Your task to perform on an android device: turn off notifications settings in the gmail app Image 0: 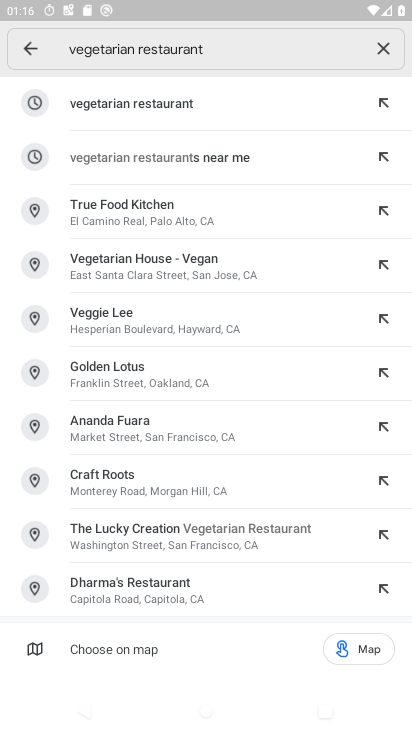
Step 0: press home button
Your task to perform on an android device: turn off notifications settings in the gmail app Image 1: 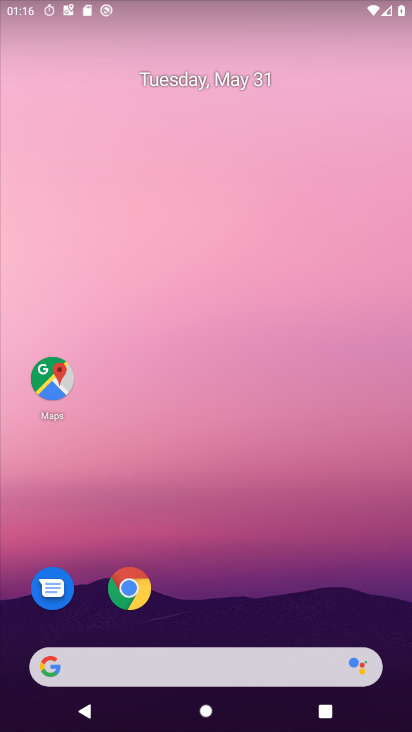
Step 1: drag from (190, 650) to (147, 64)
Your task to perform on an android device: turn off notifications settings in the gmail app Image 2: 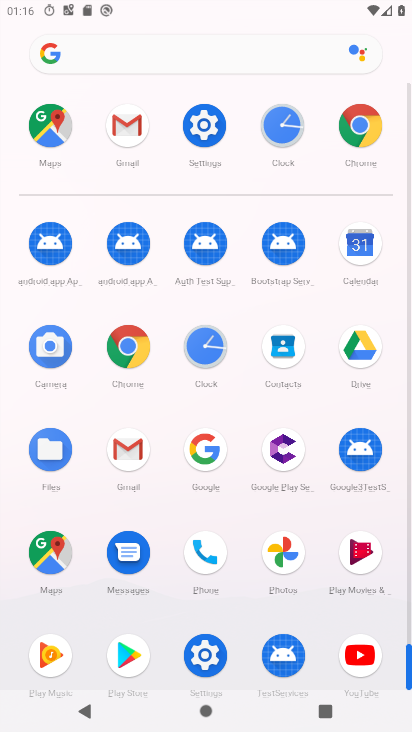
Step 2: click (122, 443)
Your task to perform on an android device: turn off notifications settings in the gmail app Image 3: 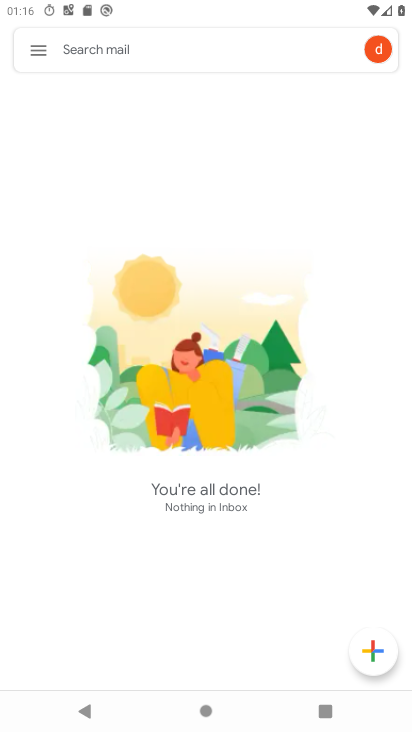
Step 3: click (43, 45)
Your task to perform on an android device: turn off notifications settings in the gmail app Image 4: 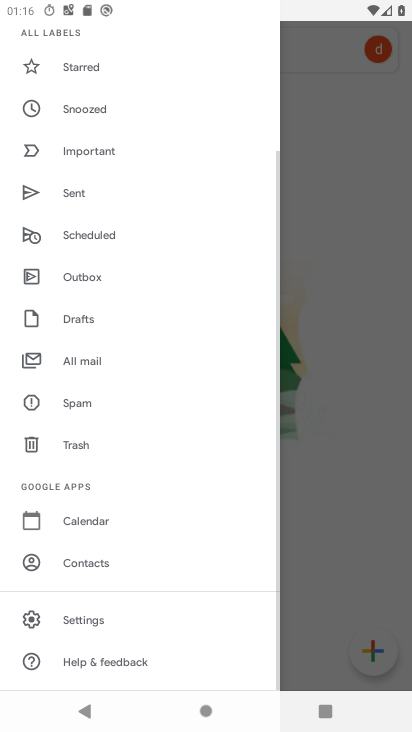
Step 4: click (116, 629)
Your task to perform on an android device: turn off notifications settings in the gmail app Image 5: 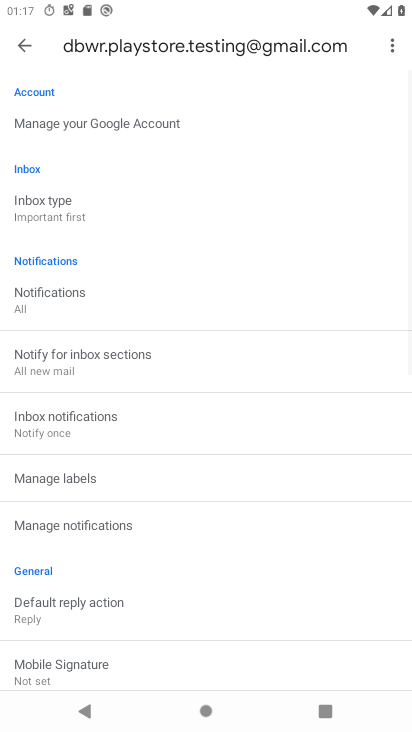
Step 5: drag from (109, 623) to (123, 380)
Your task to perform on an android device: turn off notifications settings in the gmail app Image 6: 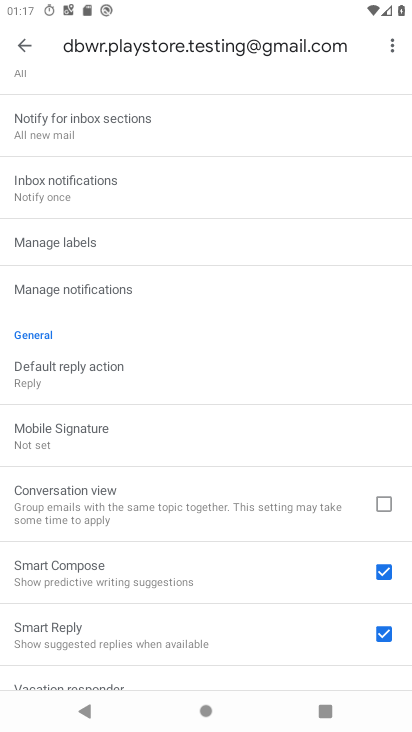
Step 6: click (128, 296)
Your task to perform on an android device: turn off notifications settings in the gmail app Image 7: 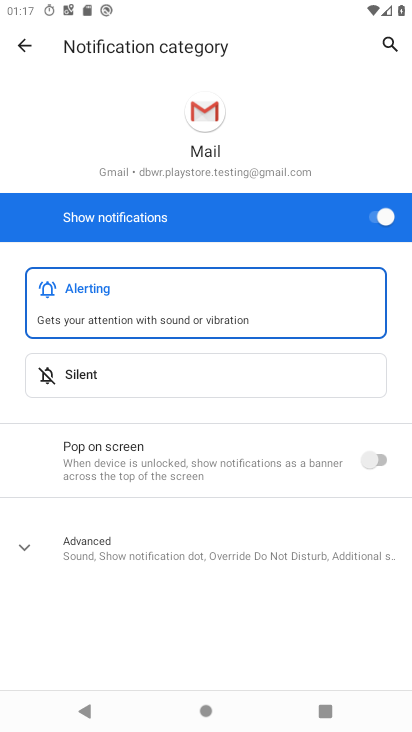
Step 7: click (379, 219)
Your task to perform on an android device: turn off notifications settings in the gmail app Image 8: 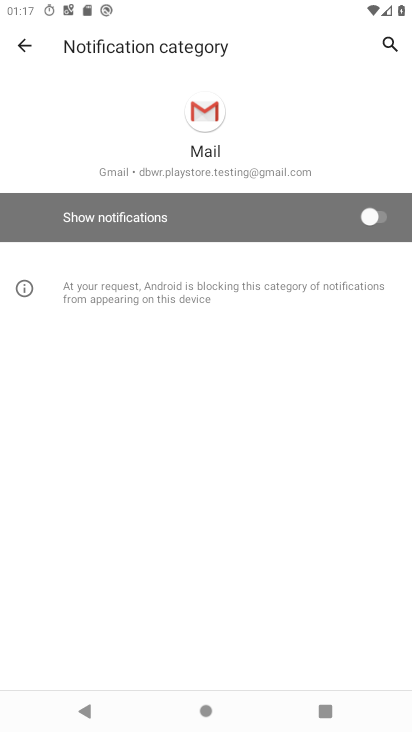
Step 8: task complete